Your task to perform on an android device: toggle sleep mode Image 0: 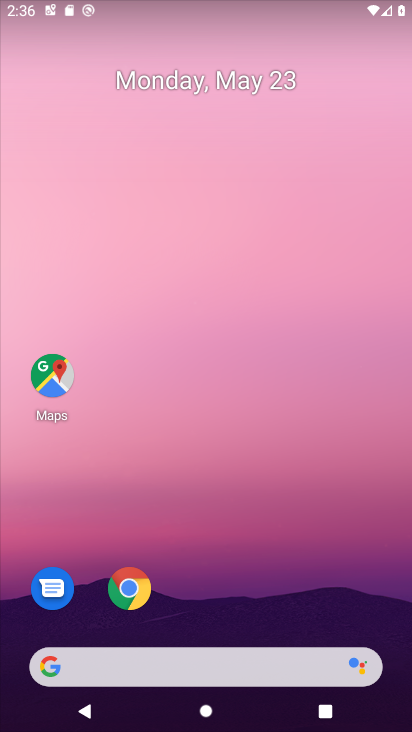
Step 0: drag from (216, 449) to (248, 159)
Your task to perform on an android device: toggle sleep mode Image 1: 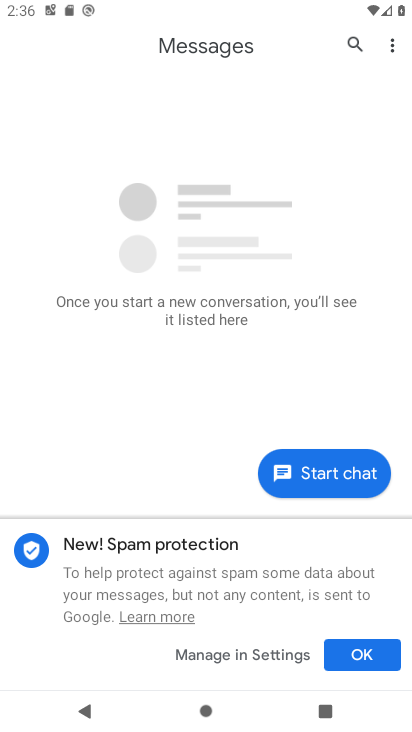
Step 1: press home button
Your task to perform on an android device: toggle sleep mode Image 2: 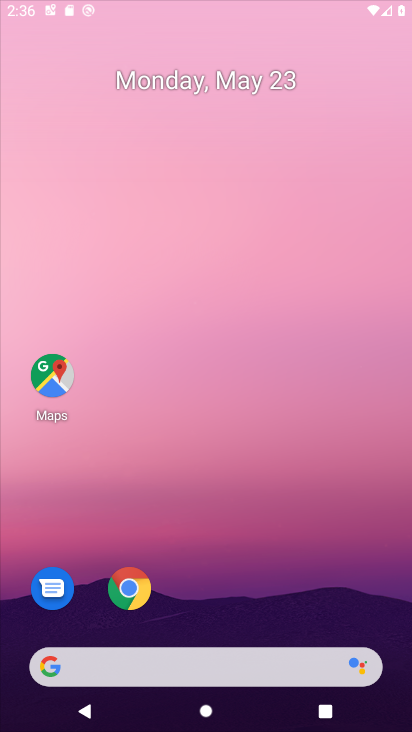
Step 2: drag from (245, 622) to (290, 152)
Your task to perform on an android device: toggle sleep mode Image 3: 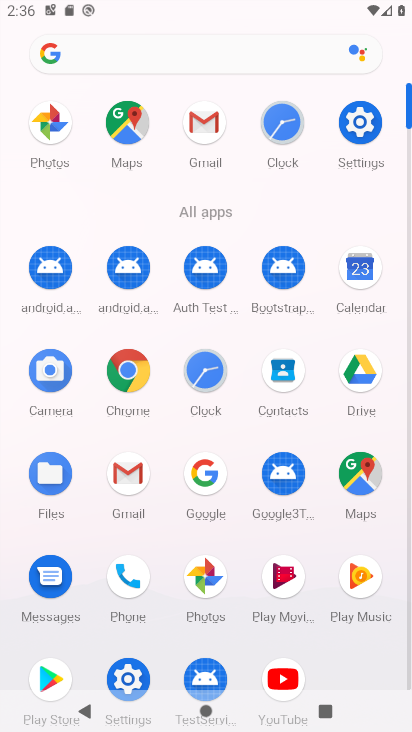
Step 3: click (355, 129)
Your task to perform on an android device: toggle sleep mode Image 4: 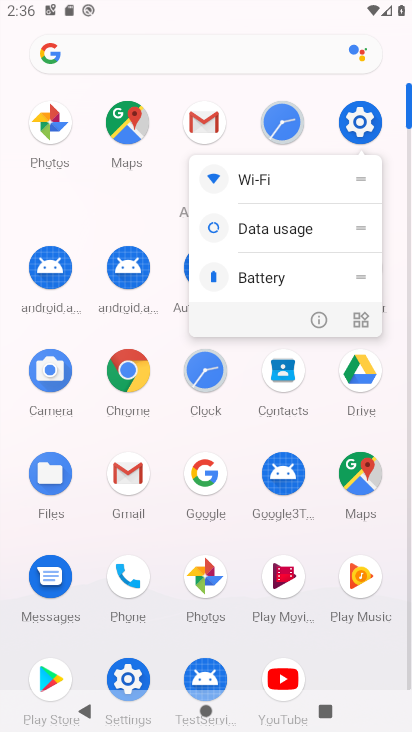
Step 4: click (314, 328)
Your task to perform on an android device: toggle sleep mode Image 5: 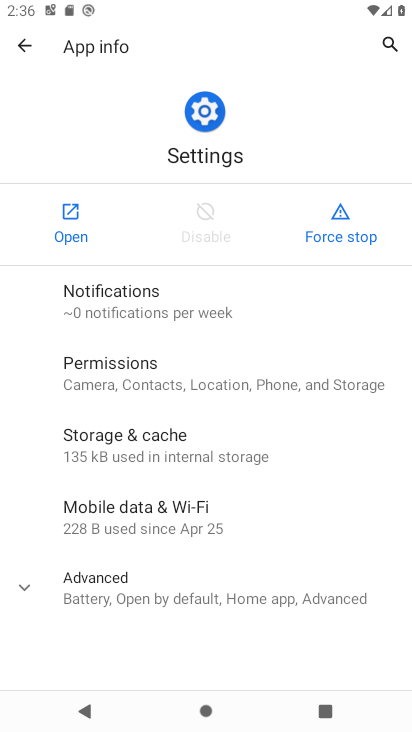
Step 5: click (44, 210)
Your task to perform on an android device: toggle sleep mode Image 6: 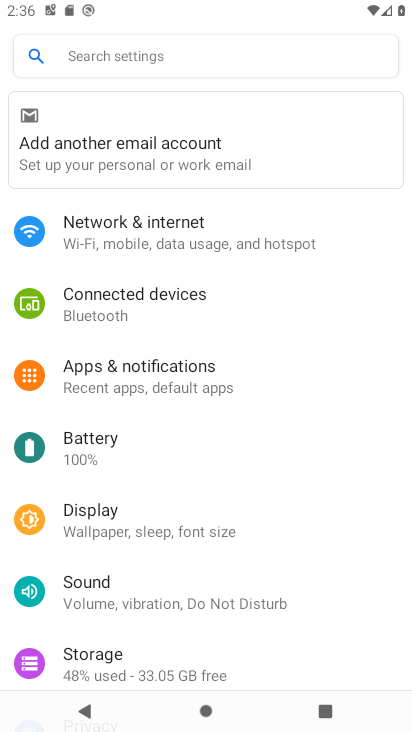
Step 6: drag from (228, 496) to (229, 204)
Your task to perform on an android device: toggle sleep mode Image 7: 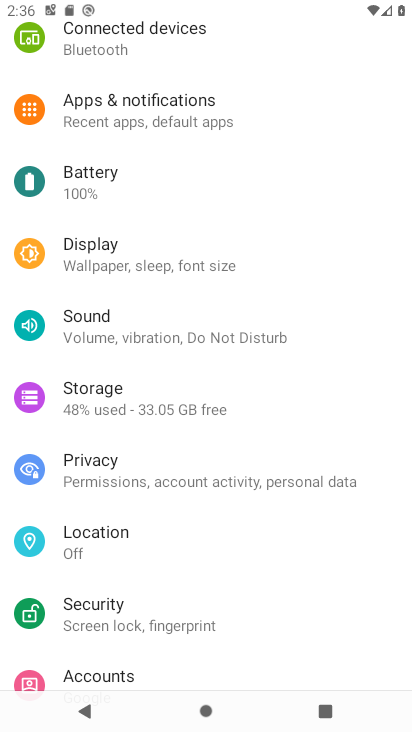
Step 7: click (151, 266)
Your task to perform on an android device: toggle sleep mode Image 8: 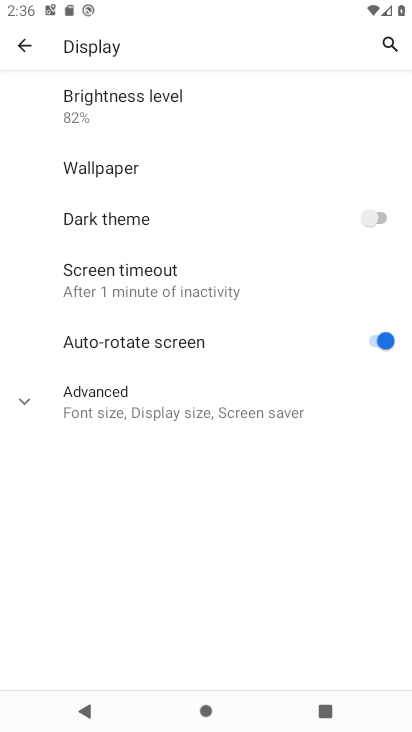
Step 8: click (147, 278)
Your task to perform on an android device: toggle sleep mode Image 9: 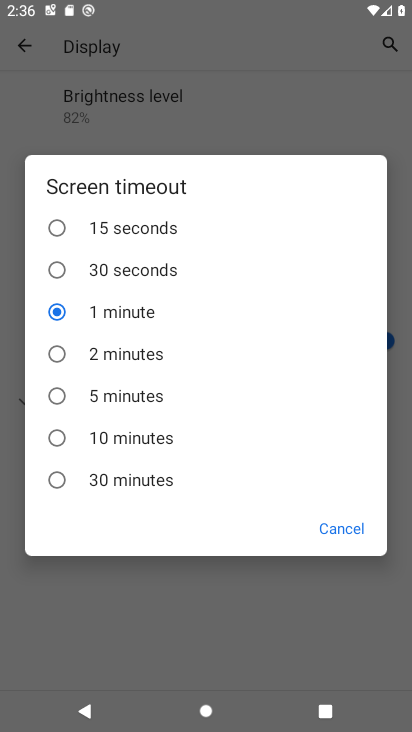
Step 9: drag from (211, 514) to (219, 317)
Your task to perform on an android device: toggle sleep mode Image 10: 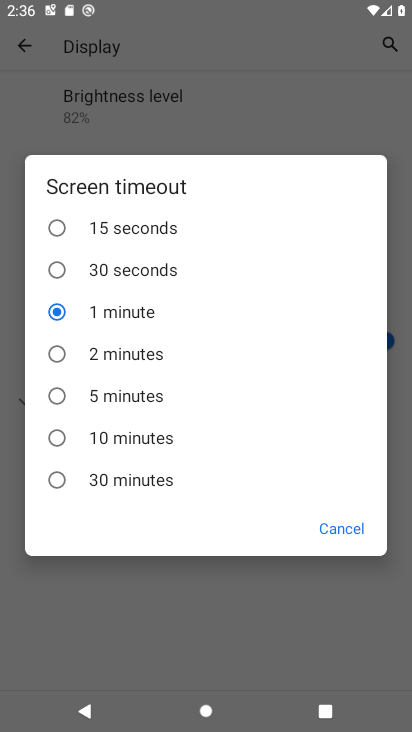
Step 10: click (92, 229)
Your task to perform on an android device: toggle sleep mode Image 11: 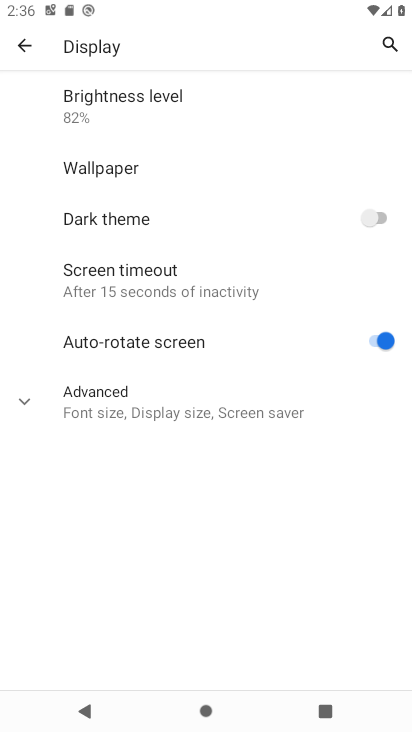
Step 11: task complete